Your task to perform on an android device: Set the phone to "Do not disturb". Image 0: 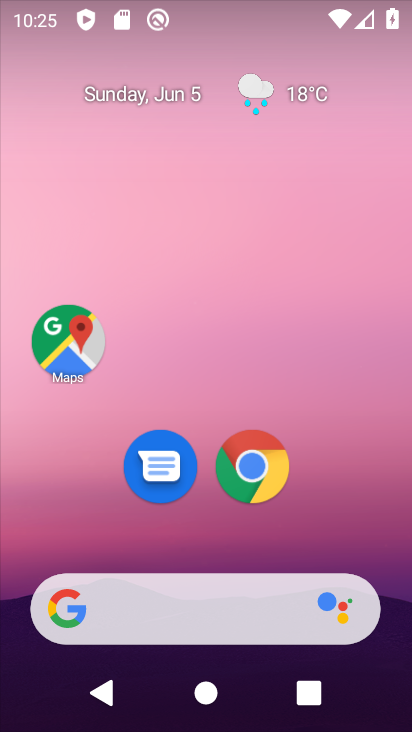
Step 0: drag from (340, 515) to (280, 24)
Your task to perform on an android device: Set the phone to "Do not disturb". Image 1: 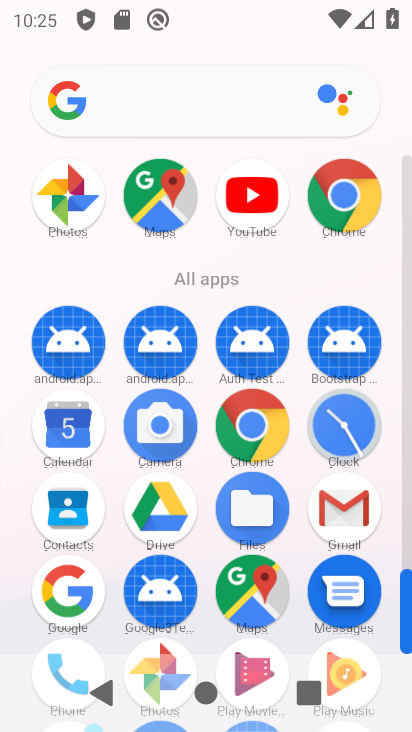
Step 1: drag from (0, 560) to (27, 211)
Your task to perform on an android device: Set the phone to "Do not disturb". Image 2: 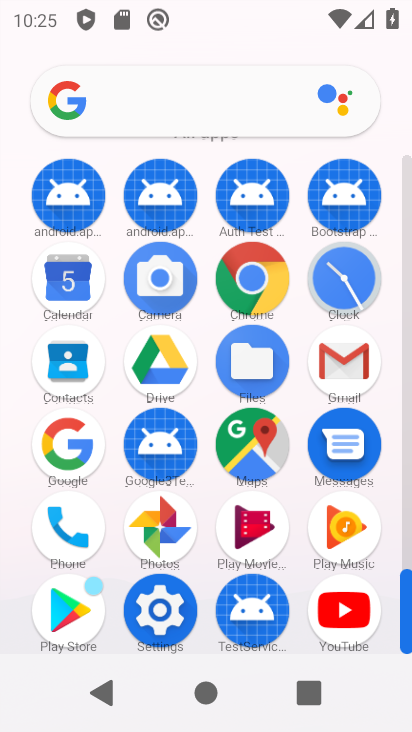
Step 2: click (156, 613)
Your task to perform on an android device: Set the phone to "Do not disturb". Image 3: 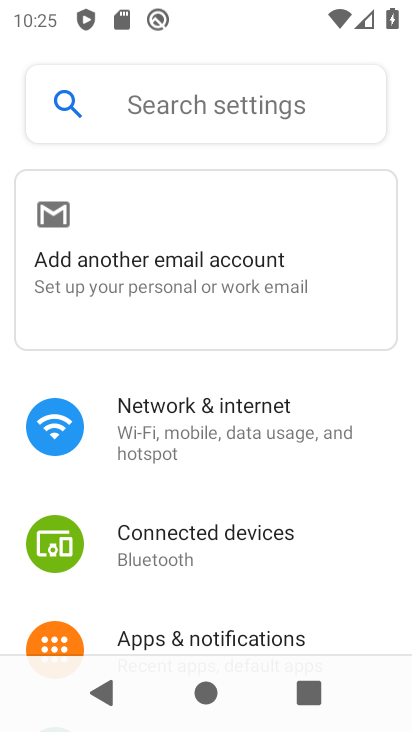
Step 3: drag from (318, 617) to (303, 224)
Your task to perform on an android device: Set the phone to "Do not disturb". Image 4: 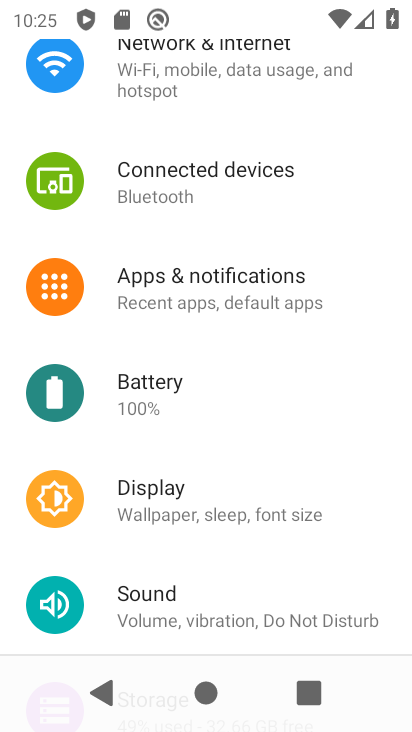
Step 4: drag from (293, 564) to (287, 277)
Your task to perform on an android device: Set the phone to "Do not disturb". Image 5: 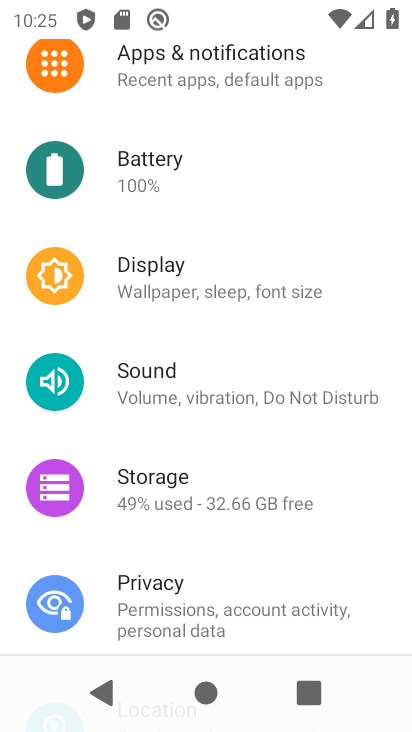
Step 5: click (208, 374)
Your task to perform on an android device: Set the phone to "Do not disturb". Image 6: 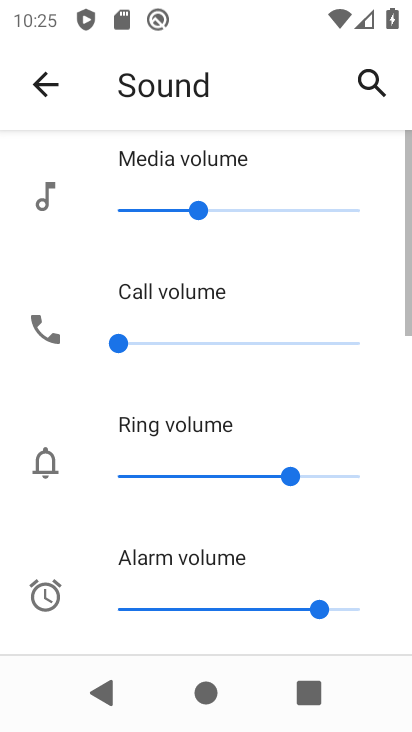
Step 6: drag from (211, 546) to (226, 161)
Your task to perform on an android device: Set the phone to "Do not disturb". Image 7: 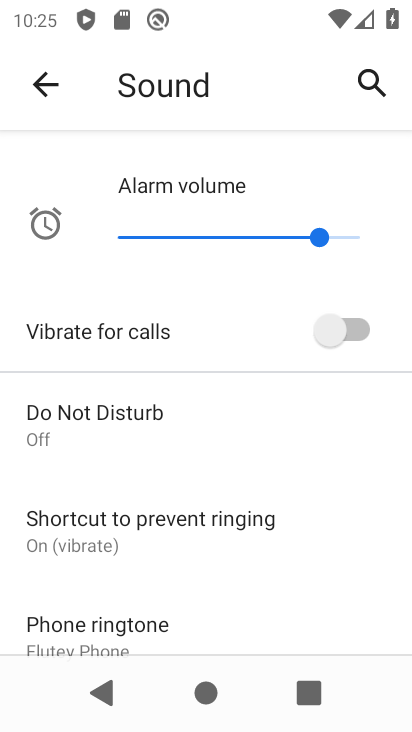
Step 7: click (170, 422)
Your task to perform on an android device: Set the phone to "Do not disturb". Image 8: 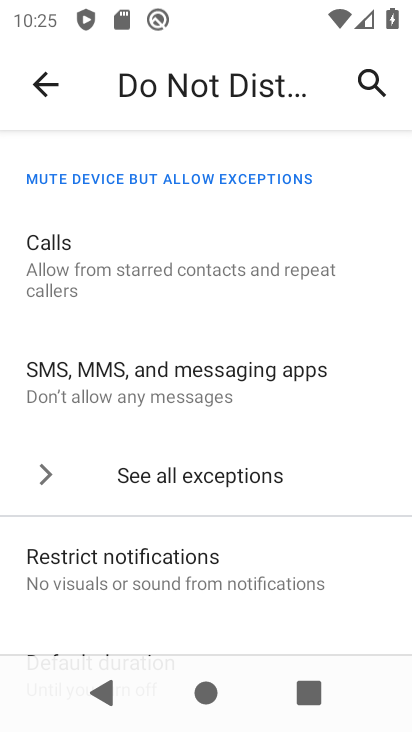
Step 8: drag from (211, 554) to (261, 138)
Your task to perform on an android device: Set the phone to "Do not disturb". Image 9: 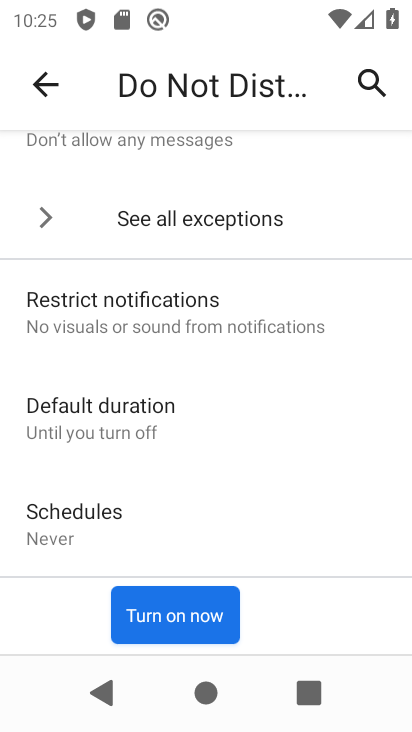
Step 9: click (169, 587)
Your task to perform on an android device: Set the phone to "Do not disturb". Image 10: 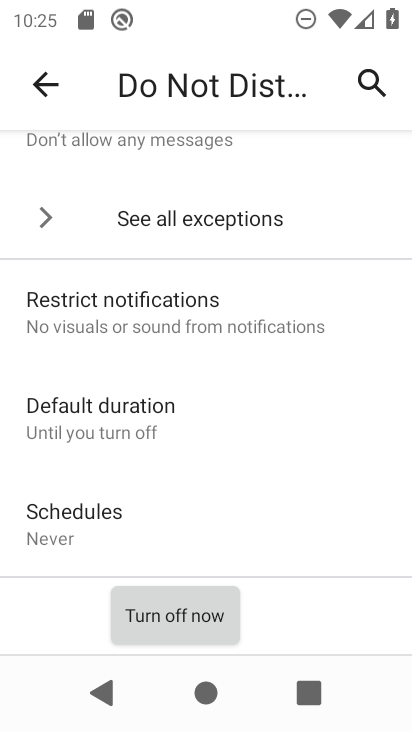
Step 10: task complete